Your task to perform on an android device: show emergency info Image 0: 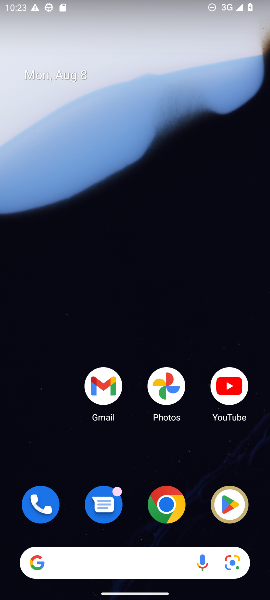
Step 0: drag from (134, 530) to (148, 5)
Your task to perform on an android device: show emergency info Image 1: 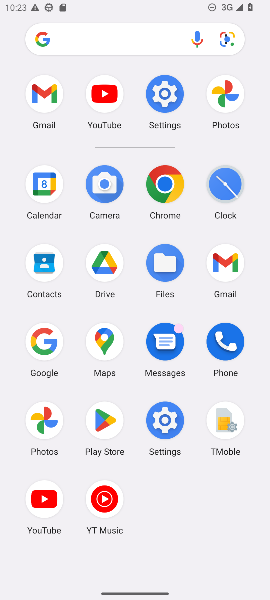
Step 1: click (163, 432)
Your task to perform on an android device: show emergency info Image 2: 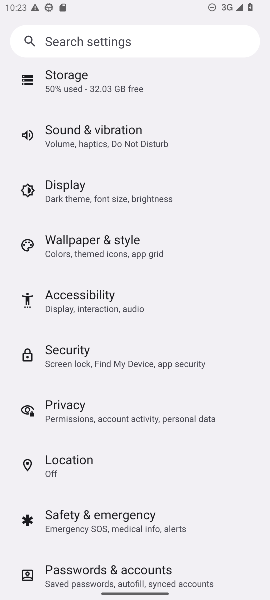
Step 2: drag from (116, 506) to (104, 140)
Your task to perform on an android device: show emergency info Image 3: 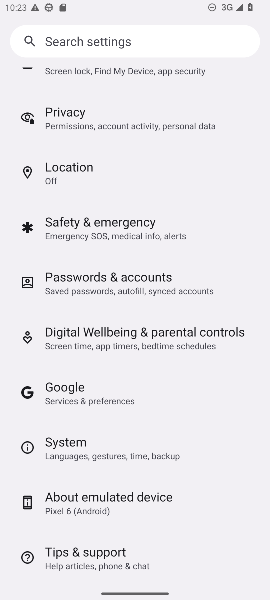
Step 3: drag from (108, 525) to (109, 176)
Your task to perform on an android device: show emergency info Image 4: 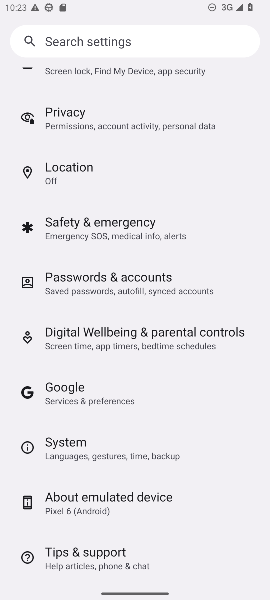
Step 4: click (108, 502)
Your task to perform on an android device: show emergency info Image 5: 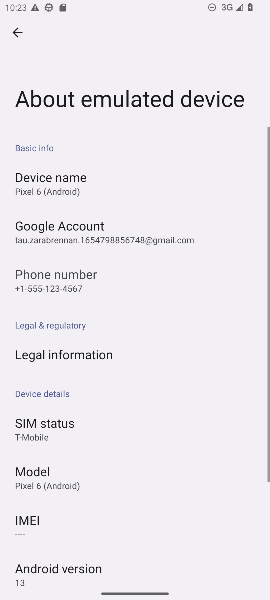
Step 5: task complete